Your task to perform on an android device: open chrome and create a bookmark for the current page Image 0: 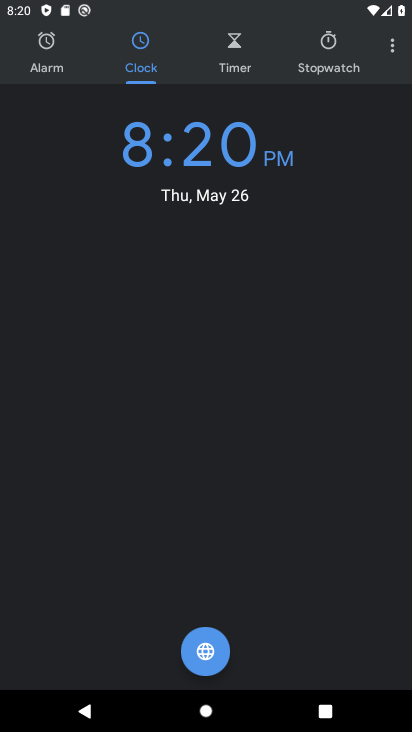
Step 0: press home button
Your task to perform on an android device: open chrome and create a bookmark for the current page Image 1: 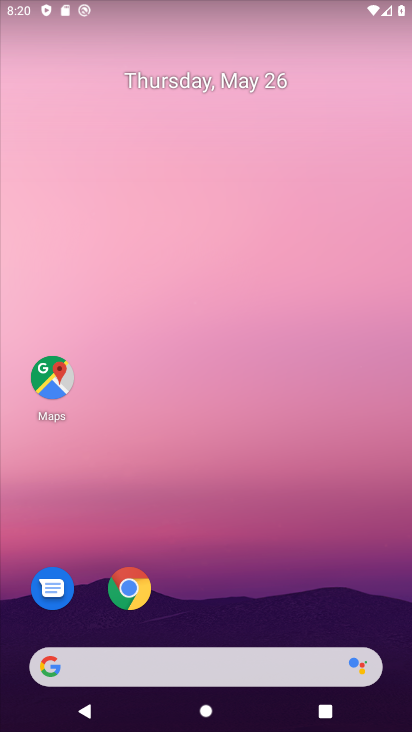
Step 1: click (130, 590)
Your task to perform on an android device: open chrome and create a bookmark for the current page Image 2: 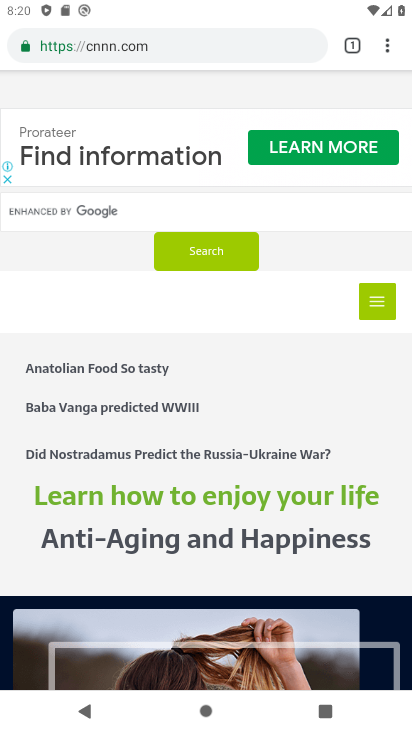
Step 2: click (386, 49)
Your task to perform on an android device: open chrome and create a bookmark for the current page Image 3: 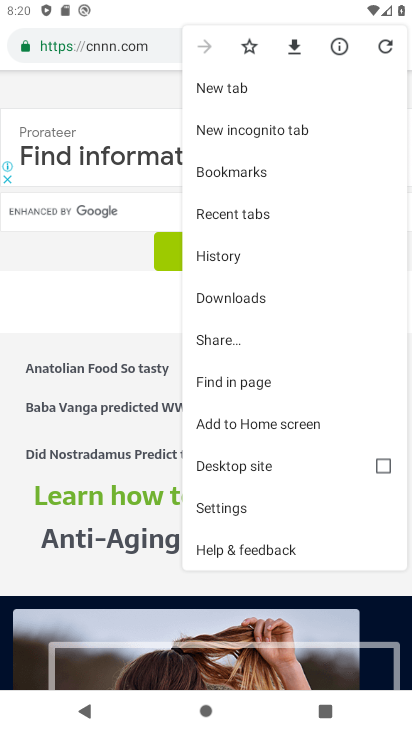
Step 3: click (242, 46)
Your task to perform on an android device: open chrome and create a bookmark for the current page Image 4: 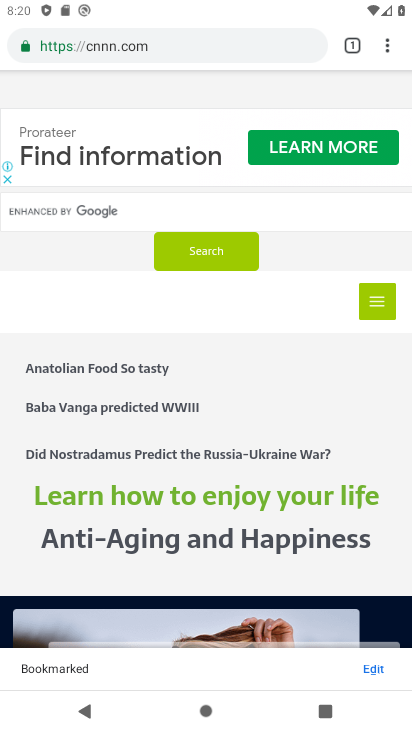
Step 4: task complete